Your task to perform on an android device: Go to settings Image 0: 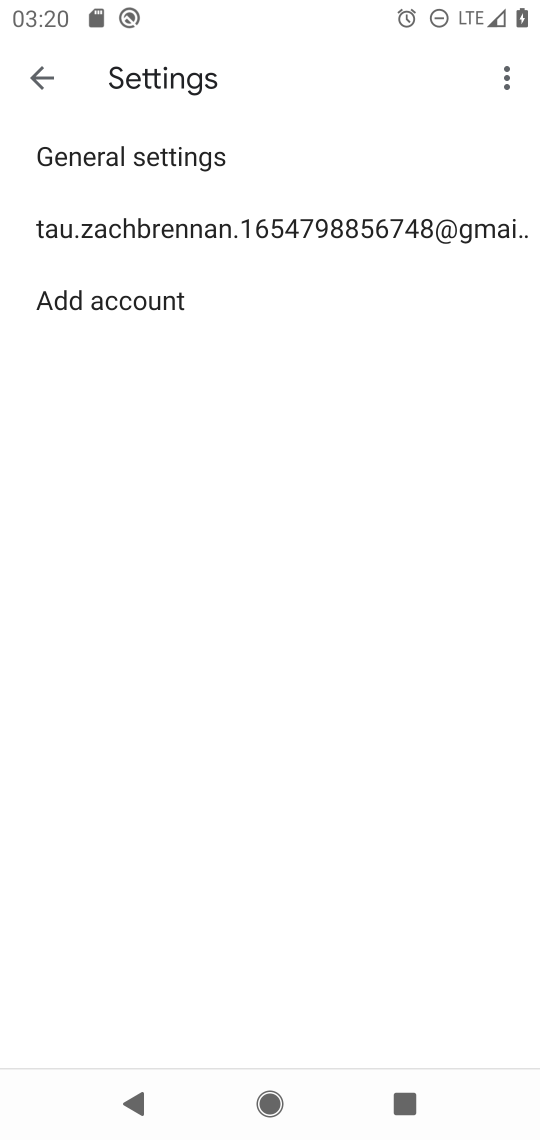
Step 0: press home button
Your task to perform on an android device: Go to settings Image 1: 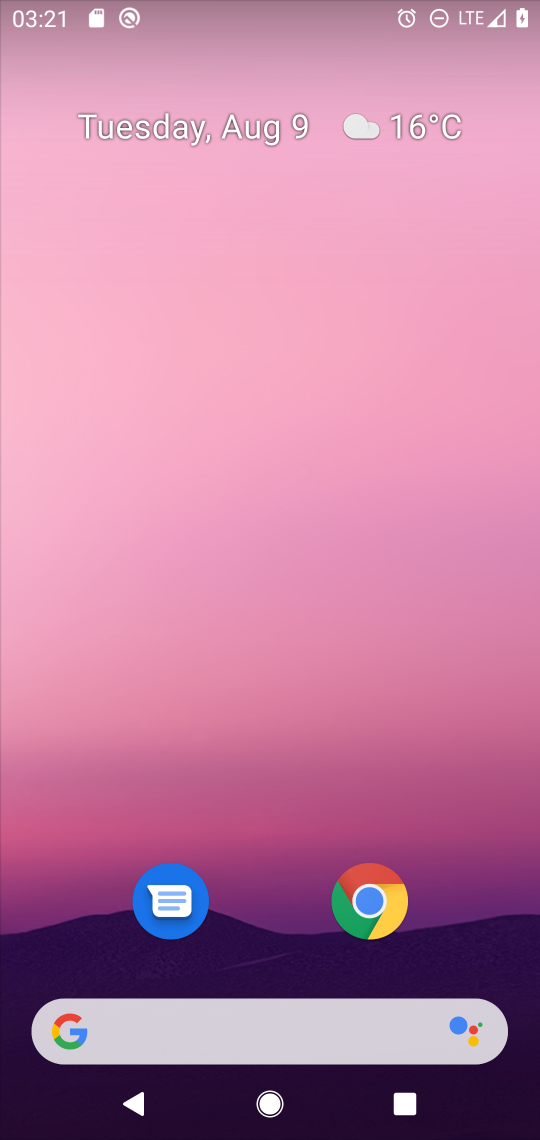
Step 1: drag from (495, 940) to (459, 362)
Your task to perform on an android device: Go to settings Image 2: 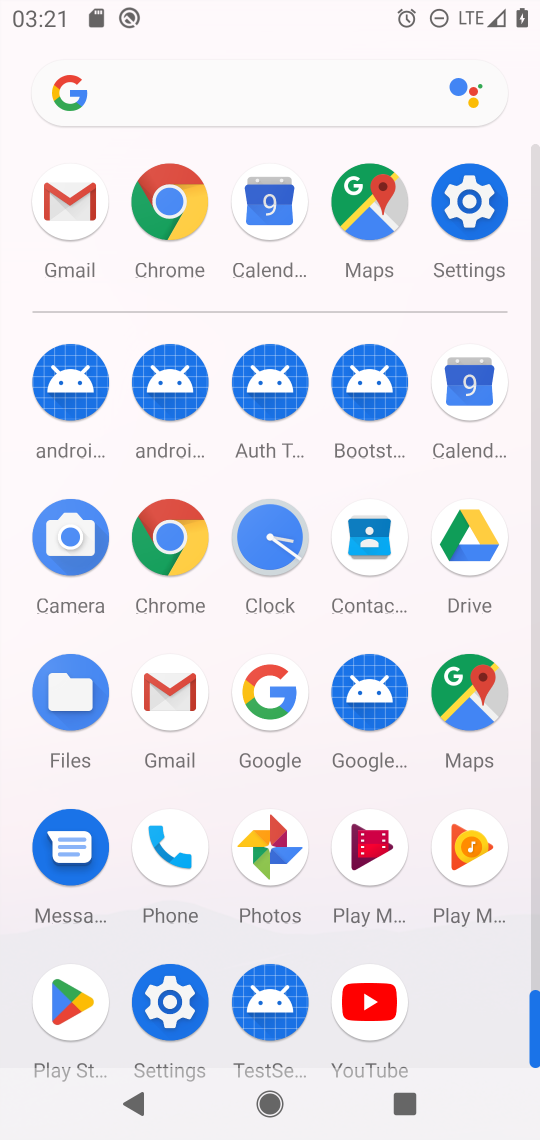
Step 2: click (170, 1002)
Your task to perform on an android device: Go to settings Image 3: 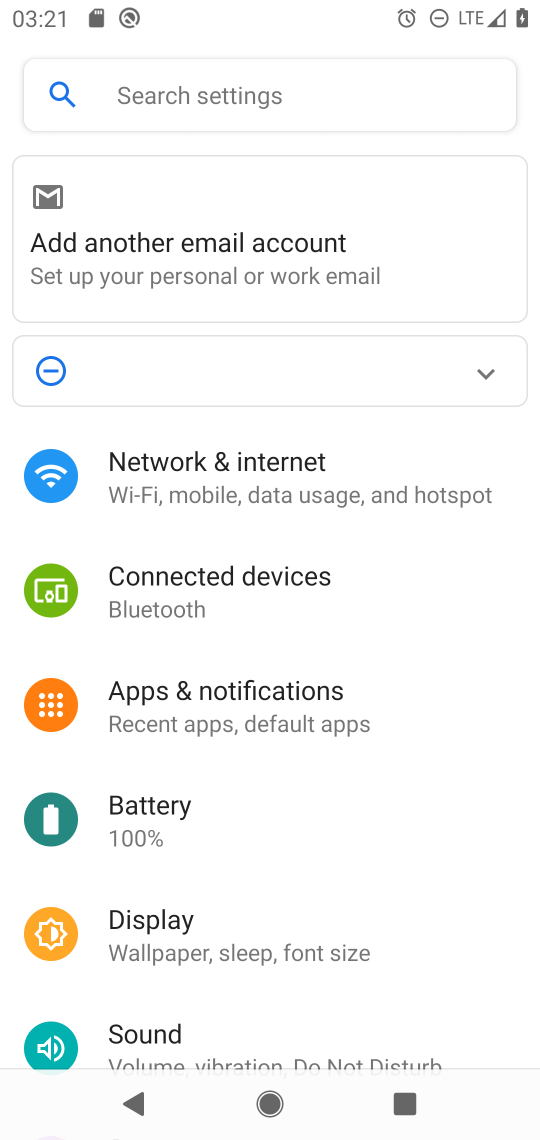
Step 3: task complete